Your task to perform on an android device: turn off data saver in the chrome app Image 0: 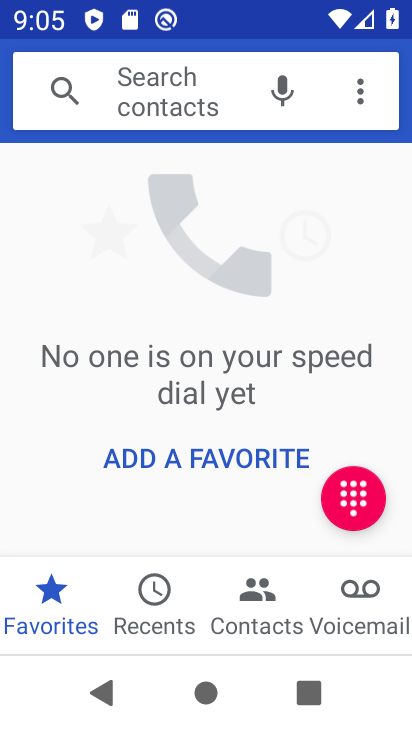
Step 0: press home button
Your task to perform on an android device: turn off data saver in the chrome app Image 1: 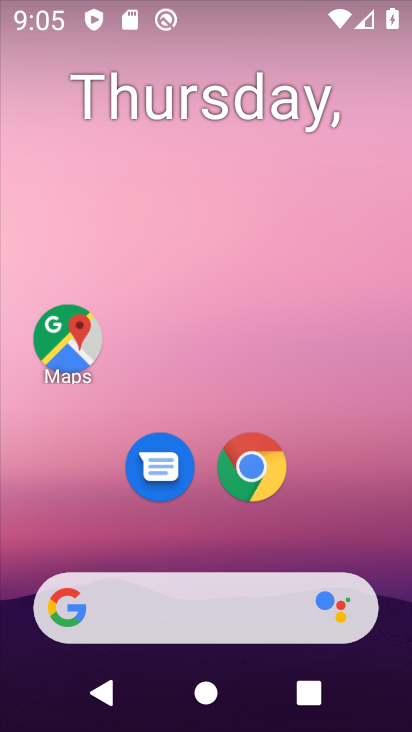
Step 1: drag from (336, 503) to (344, 30)
Your task to perform on an android device: turn off data saver in the chrome app Image 2: 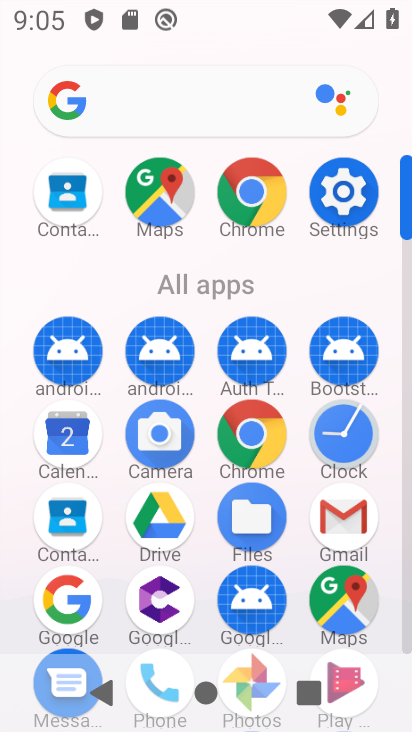
Step 2: click (273, 213)
Your task to perform on an android device: turn off data saver in the chrome app Image 3: 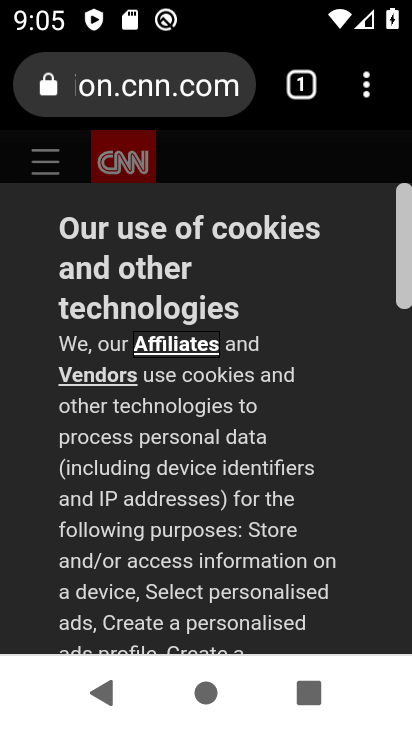
Step 3: drag from (366, 62) to (97, 497)
Your task to perform on an android device: turn off data saver in the chrome app Image 4: 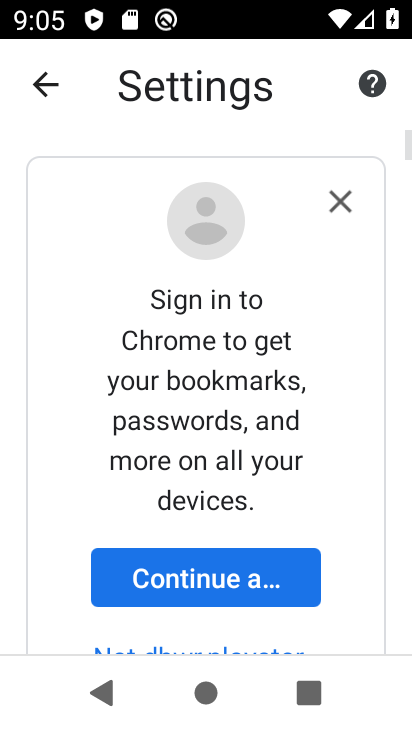
Step 4: drag from (140, 608) to (145, 234)
Your task to perform on an android device: turn off data saver in the chrome app Image 5: 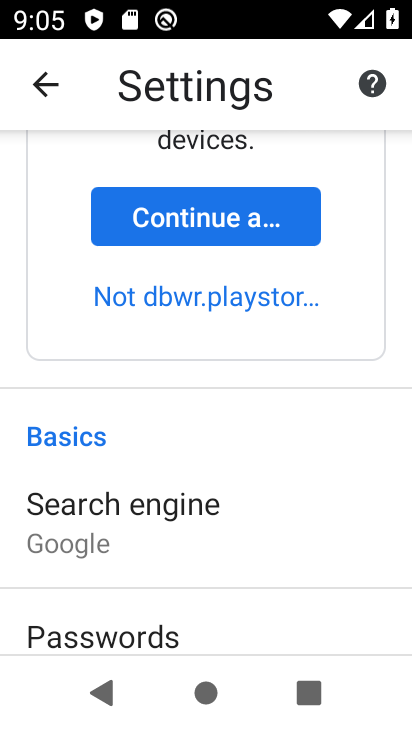
Step 5: drag from (153, 615) to (124, 179)
Your task to perform on an android device: turn off data saver in the chrome app Image 6: 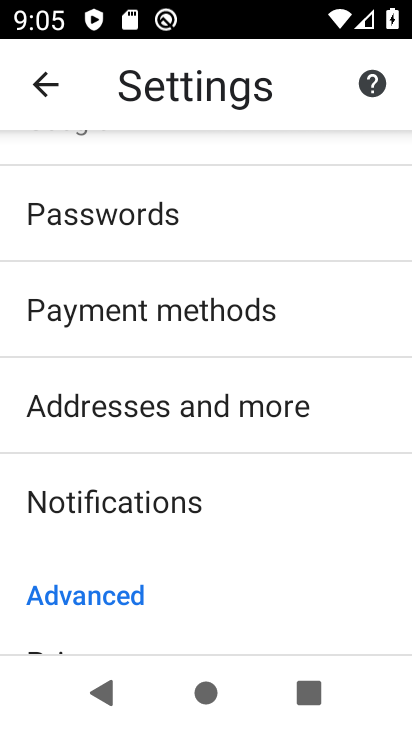
Step 6: drag from (168, 661) to (156, 248)
Your task to perform on an android device: turn off data saver in the chrome app Image 7: 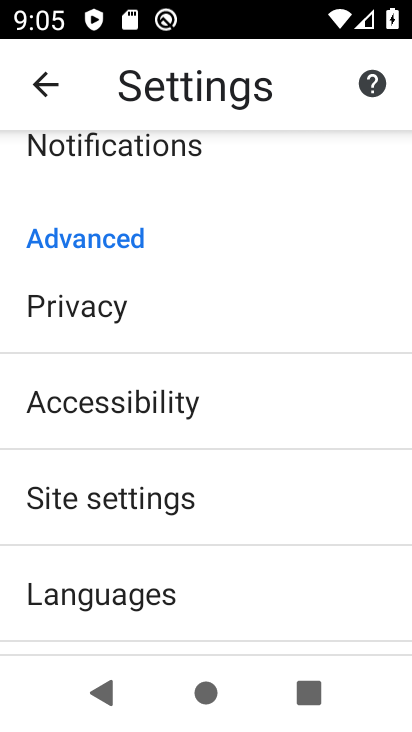
Step 7: drag from (170, 539) to (174, 295)
Your task to perform on an android device: turn off data saver in the chrome app Image 8: 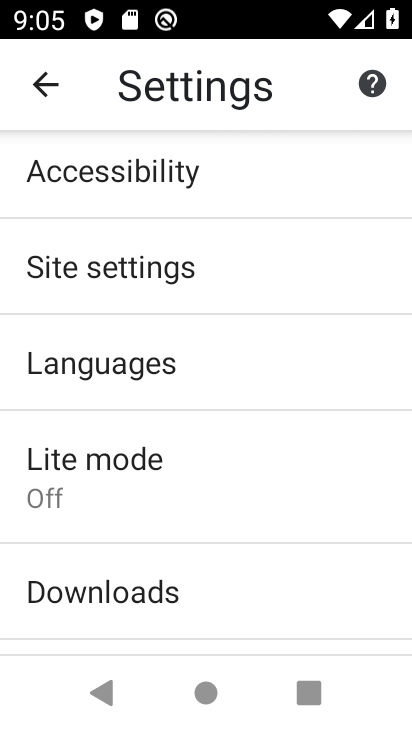
Step 8: click (142, 476)
Your task to perform on an android device: turn off data saver in the chrome app Image 9: 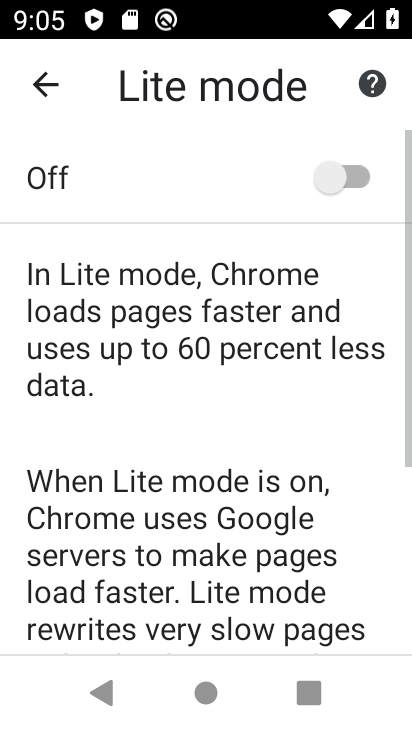
Step 9: task complete